Your task to perform on an android device: Add razer kraken to the cart on amazon.com, then select checkout. Image 0: 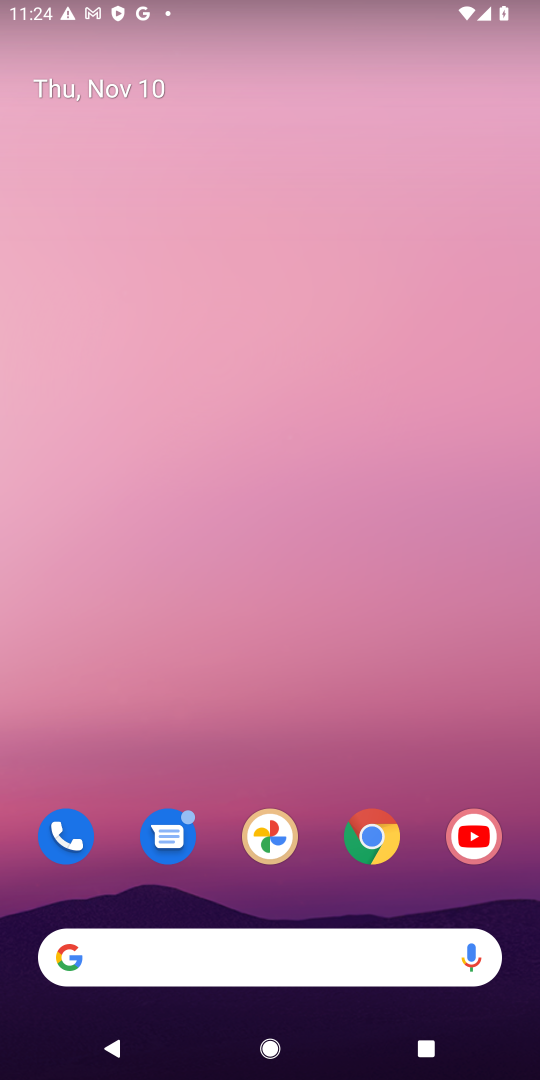
Step 0: drag from (225, 709) to (231, 108)
Your task to perform on an android device: Add razer kraken to the cart on amazon.com, then select checkout. Image 1: 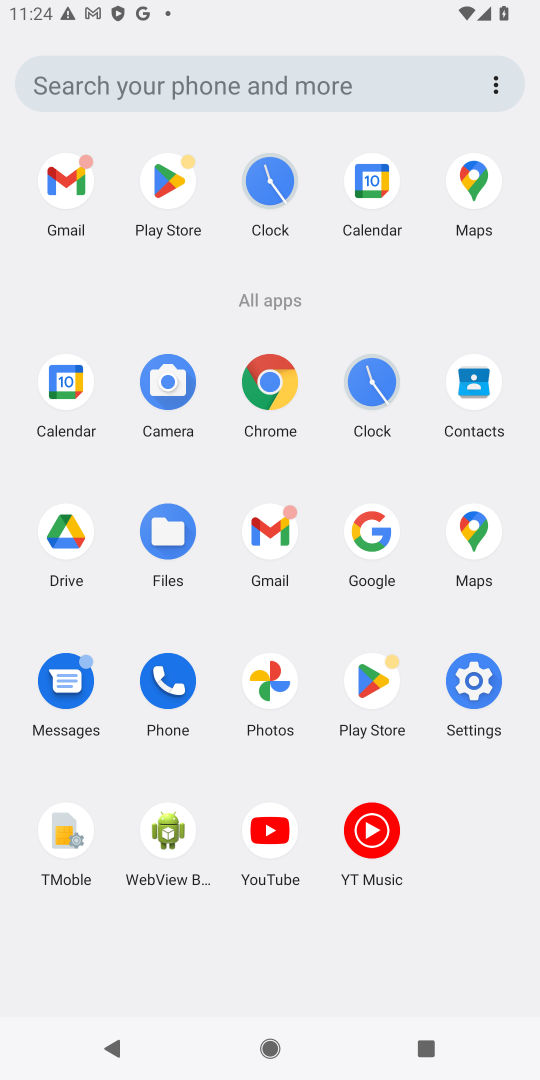
Step 1: click (275, 397)
Your task to perform on an android device: Add razer kraken to the cart on amazon.com, then select checkout. Image 2: 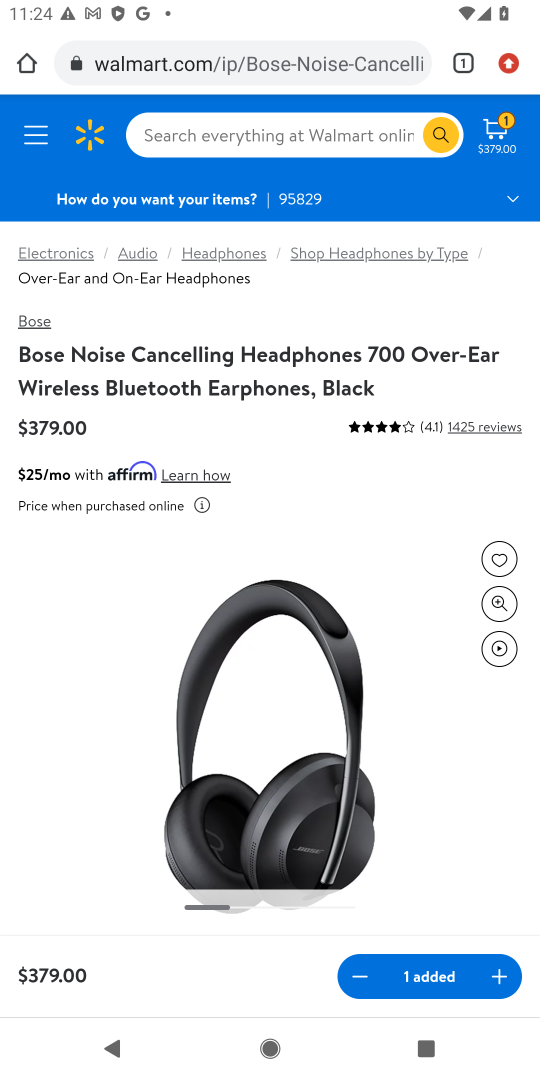
Step 2: click (245, 78)
Your task to perform on an android device: Add razer kraken to the cart on amazon.com, then select checkout. Image 3: 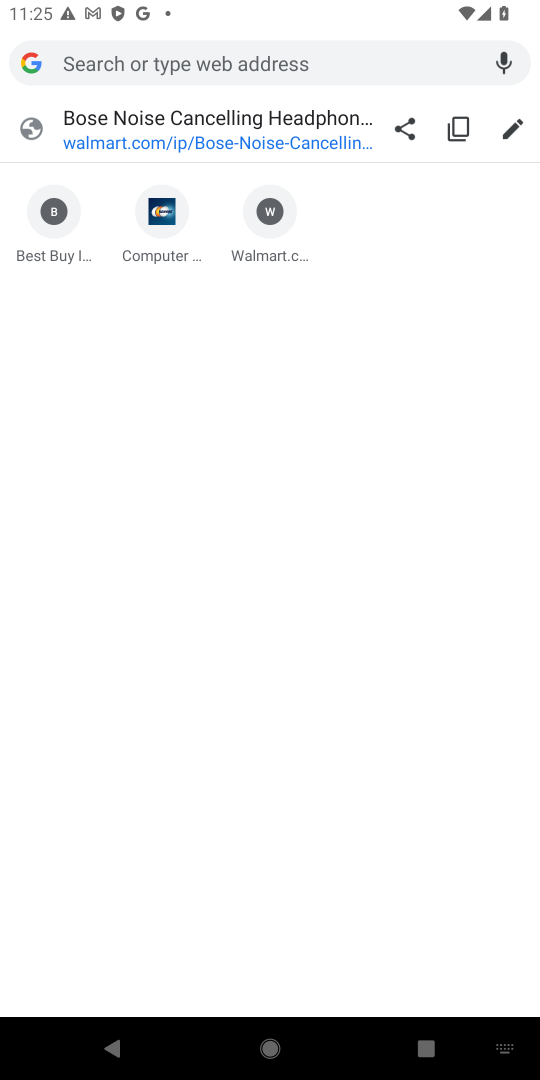
Step 3: type " amazon.com"
Your task to perform on an android device: Add razer kraken to the cart on amazon.com, then select checkout. Image 4: 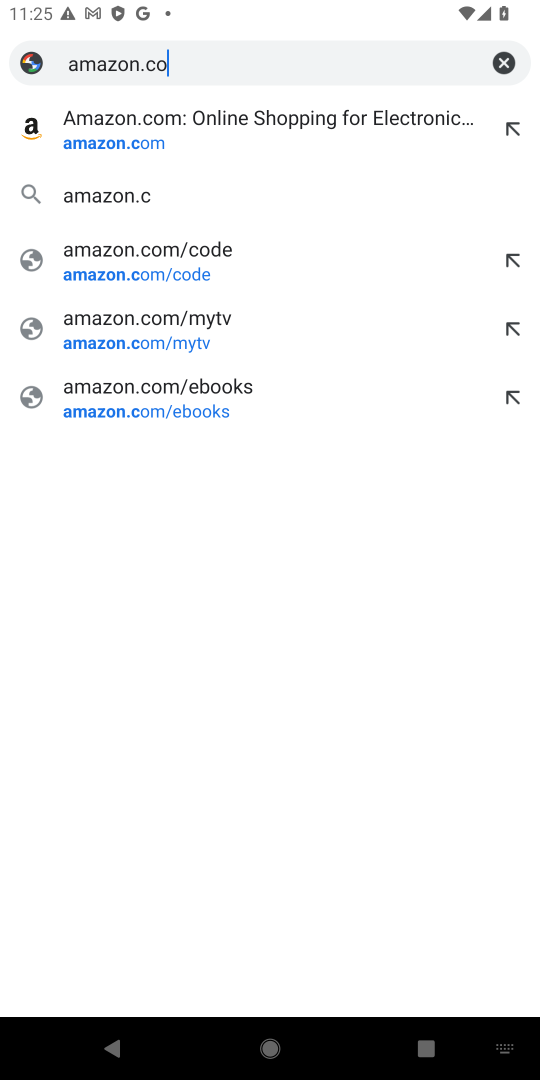
Step 4: press enter
Your task to perform on an android device: Add razer kraken to the cart on amazon.com, then select checkout. Image 5: 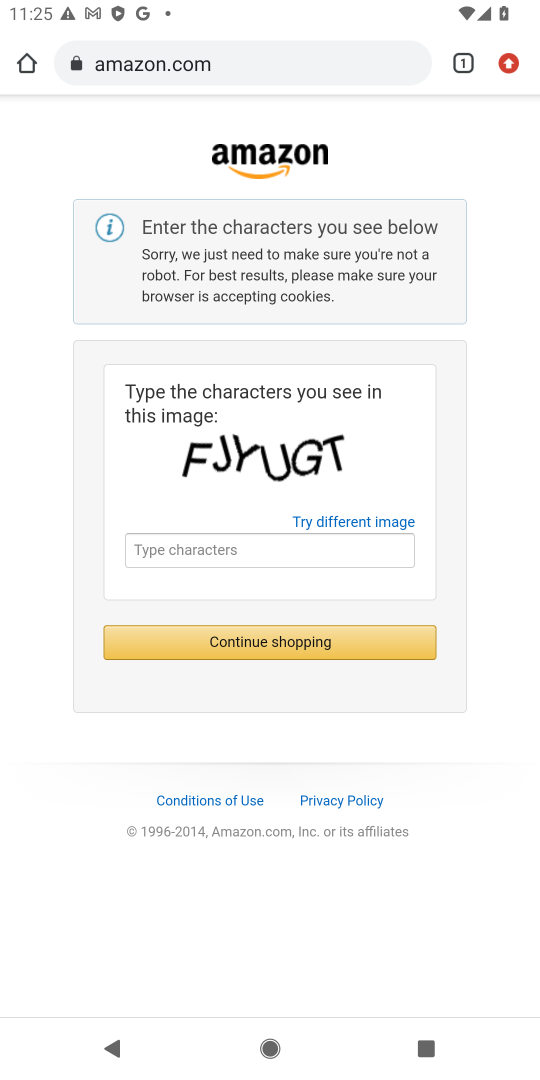
Step 5: drag from (174, 461) to (298, 444)
Your task to perform on an android device: Add razer kraken to the cart on amazon.com, then select checkout. Image 6: 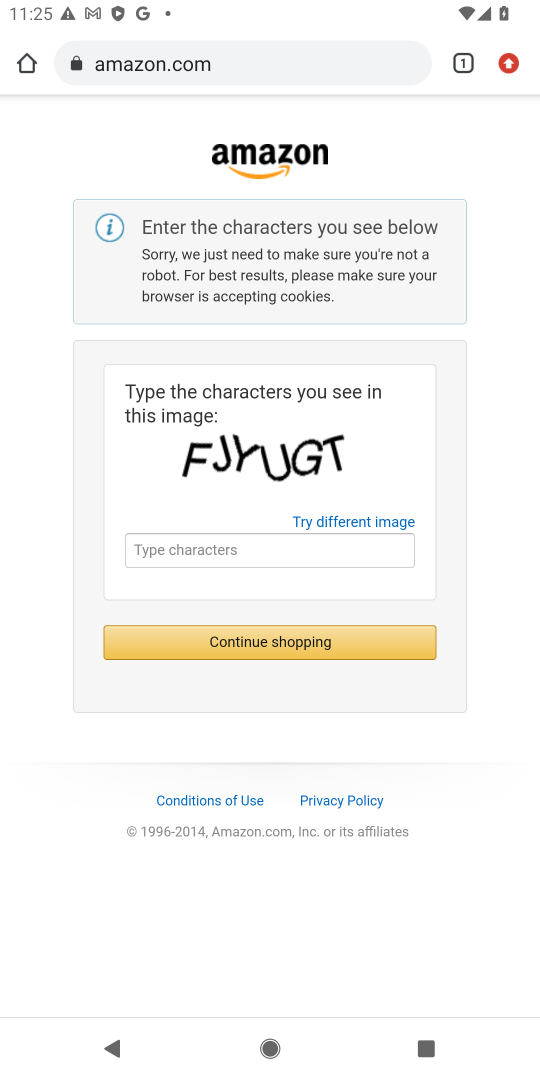
Step 6: click (191, 553)
Your task to perform on an android device: Add razer kraken to the cart on amazon.com, then select checkout. Image 7: 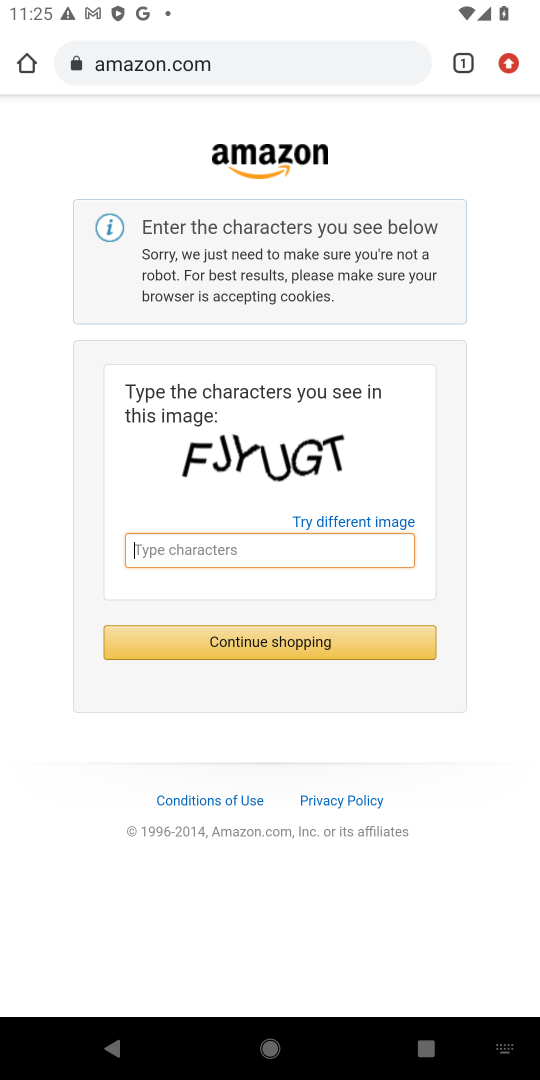
Step 7: type "FjYUGT"
Your task to perform on an android device: Add razer kraken to the cart on amazon.com, then select checkout. Image 8: 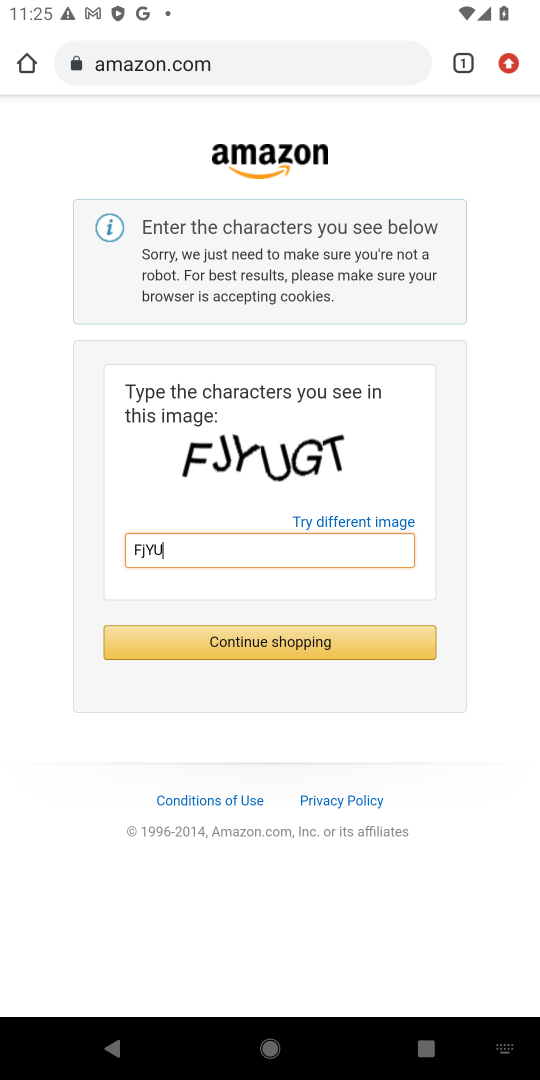
Step 8: press enter
Your task to perform on an android device: Add razer kraken to the cart on amazon.com, then select checkout. Image 9: 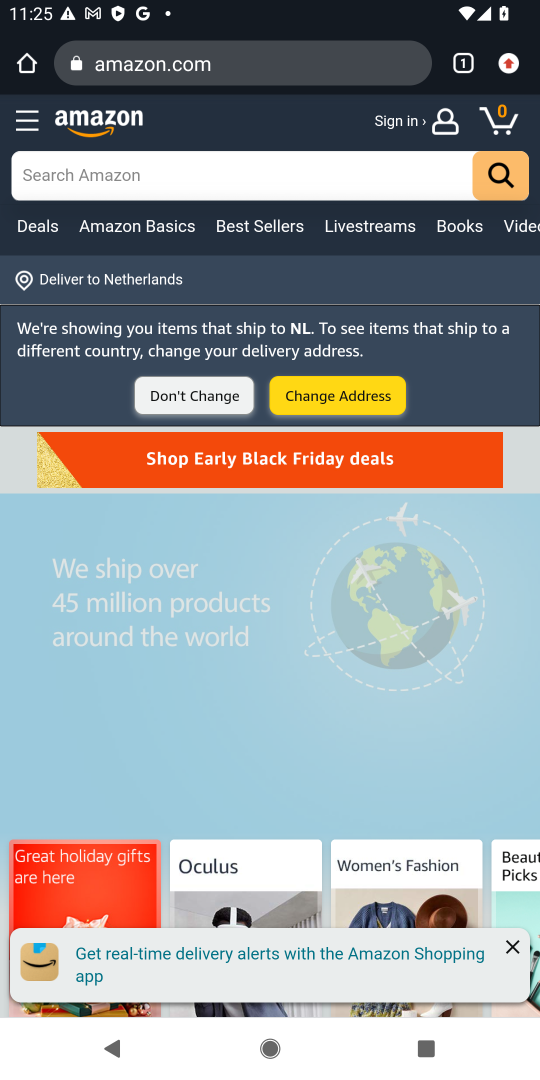
Step 9: click (68, 161)
Your task to perform on an android device: Add razer kraken to the cart on amazon.com, then select checkout. Image 10: 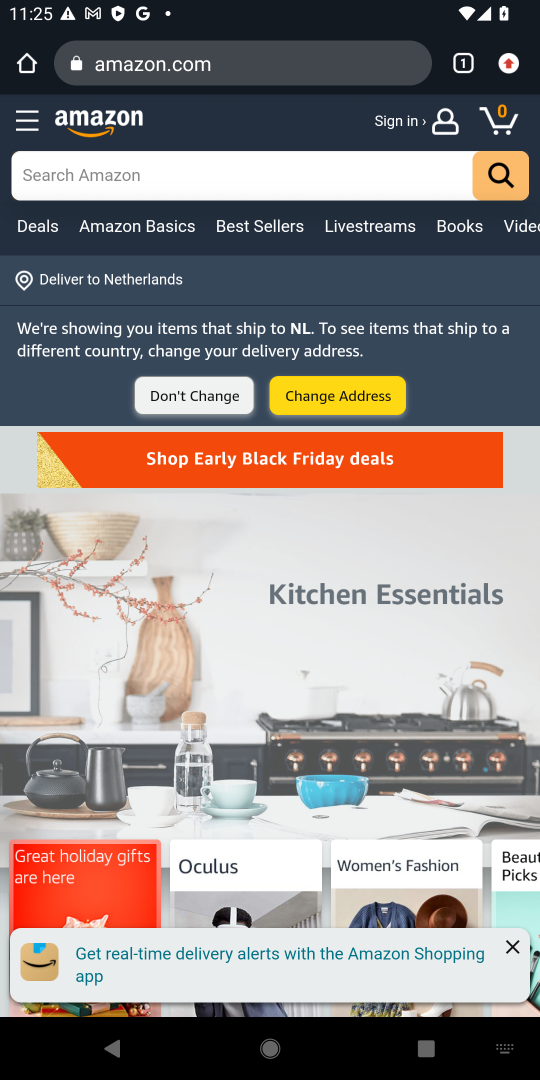
Step 10: type "razer kraken"
Your task to perform on an android device: Add razer kraken to the cart on amazon.com, then select checkout. Image 11: 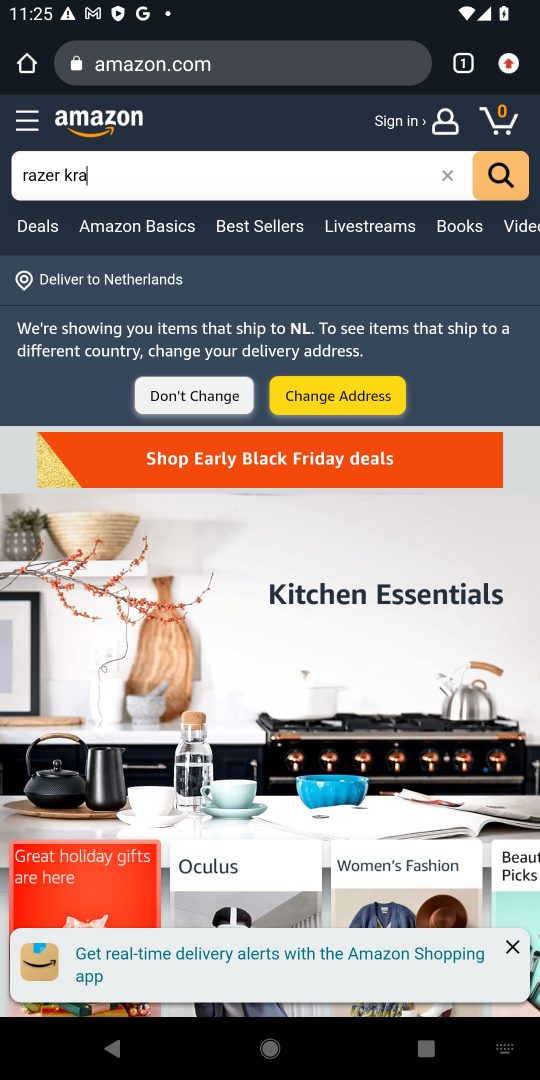
Step 11: press enter
Your task to perform on an android device: Add razer kraken to the cart on amazon.com, then select checkout. Image 12: 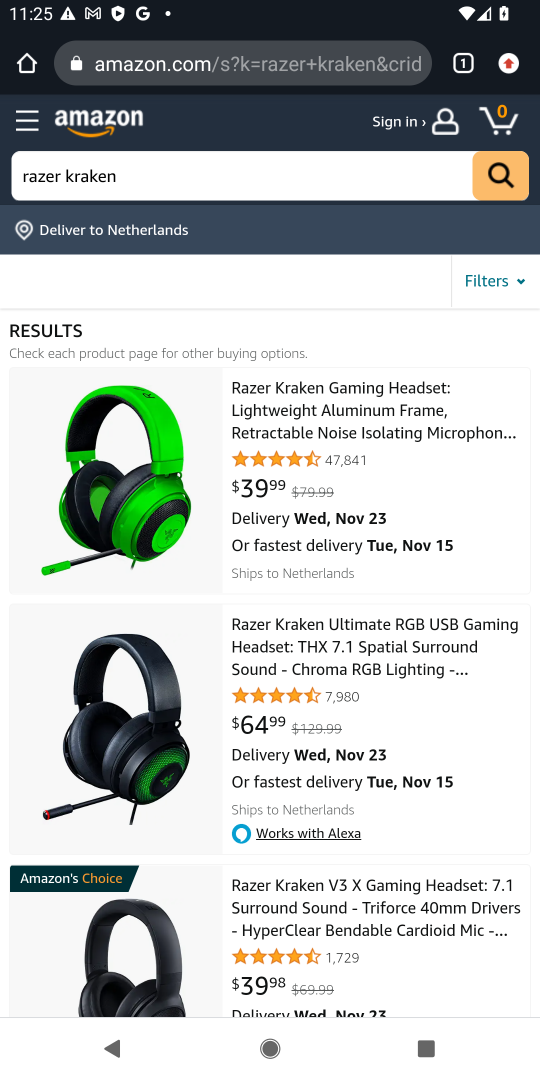
Step 12: click (368, 417)
Your task to perform on an android device: Add razer kraken to the cart on amazon.com, then select checkout. Image 13: 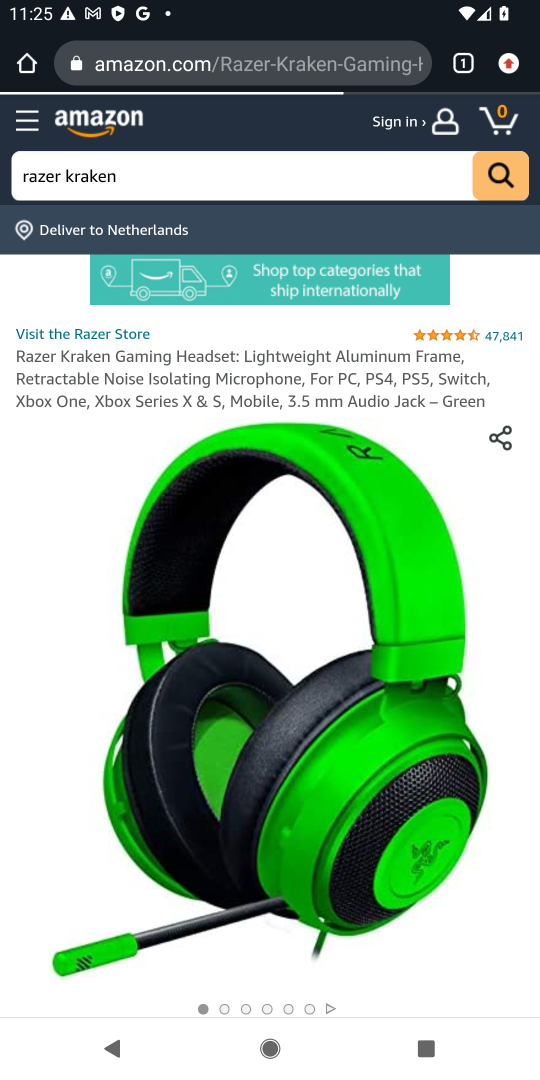
Step 13: drag from (337, 701) to (343, 447)
Your task to perform on an android device: Add razer kraken to the cart on amazon.com, then select checkout. Image 14: 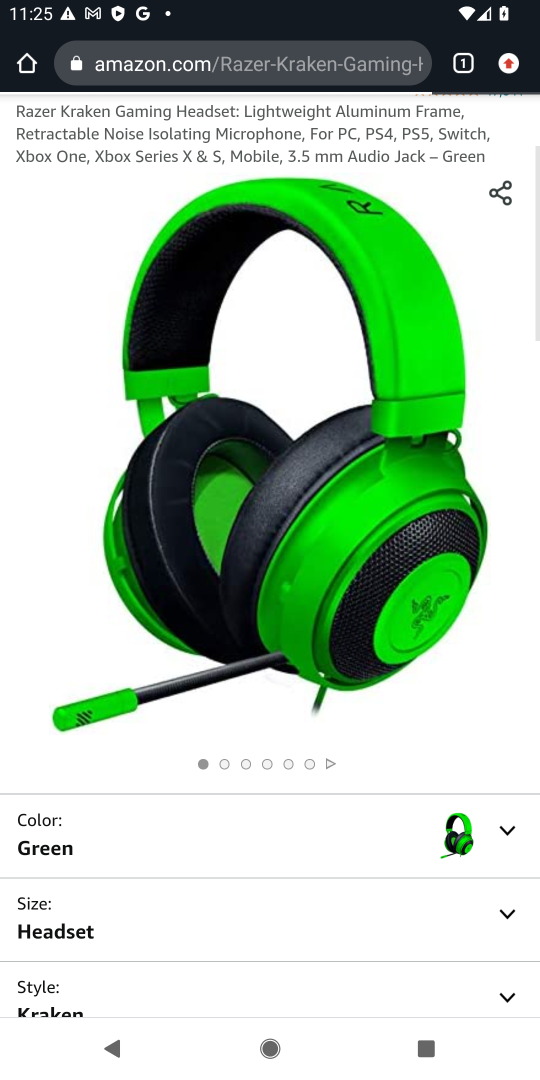
Step 14: drag from (381, 763) to (390, 376)
Your task to perform on an android device: Add razer kraken to the cart on amazon.com, then select checkout. Image 15: 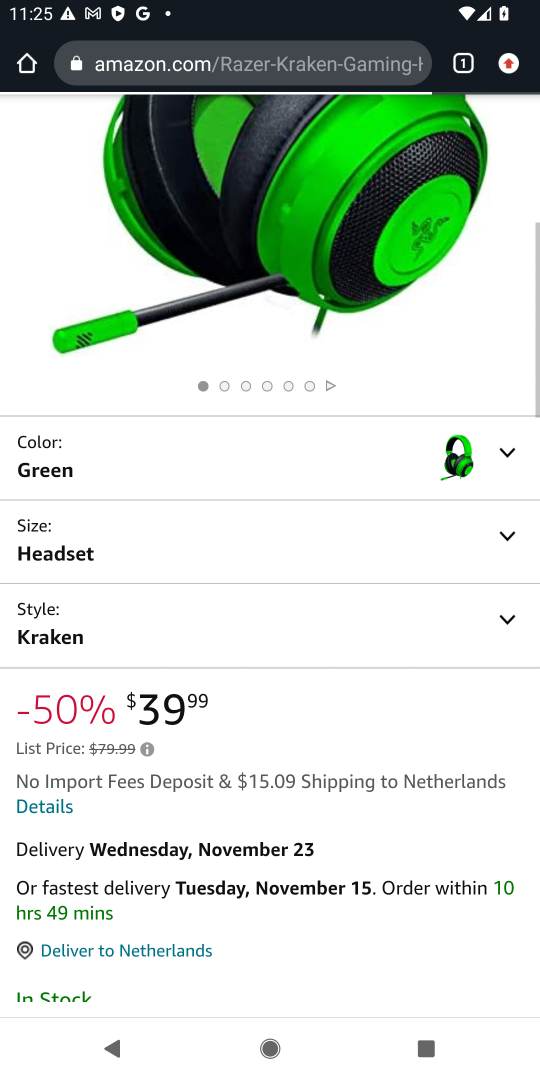
Step 15: drag from (355, 650) to (328, 333)
Your task to perform on an android device: Add razer kraken to the cart on amazon.com, then select checkout. Image 16: 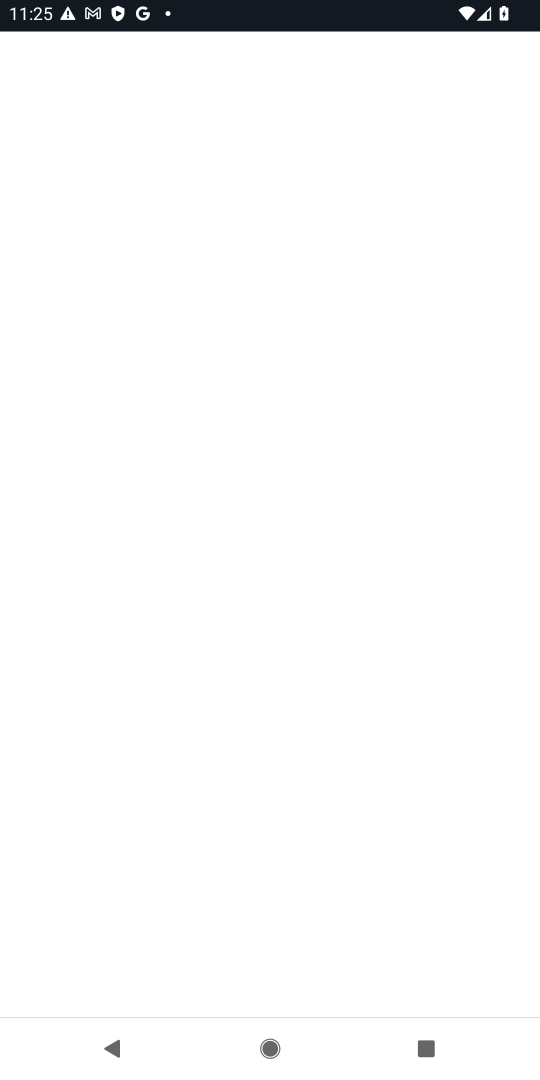
Step 16: click (337, 807)
Your task to perform on an android device: Add razer kraken to the cart on amazon.com, then select checkout. Image 17: 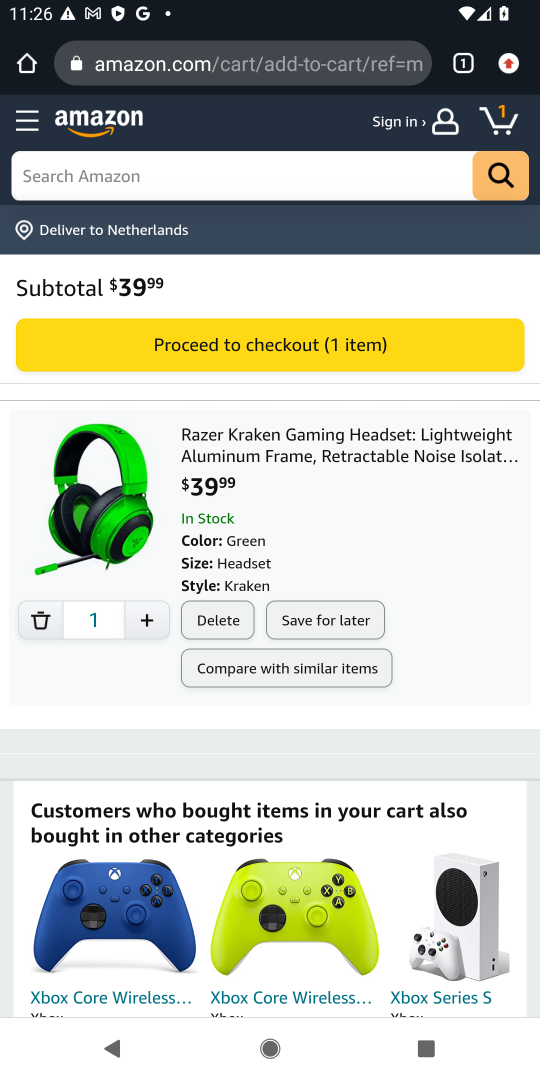
Step 17: click (494, 108)
Your task to perform on an android device: Add razer kraken to the cart on amazon.com, then select checkout. Image 18: 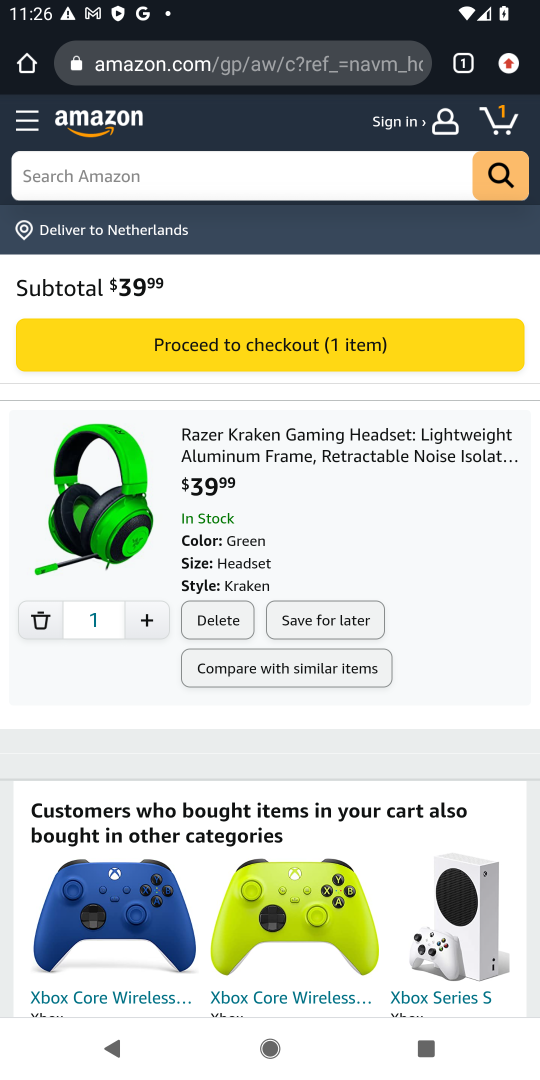
Step 18: click (328, 338)
Your task to perform on an android device: Add razer kraken to the cart on amazon.com, then select checkout. Image 19: 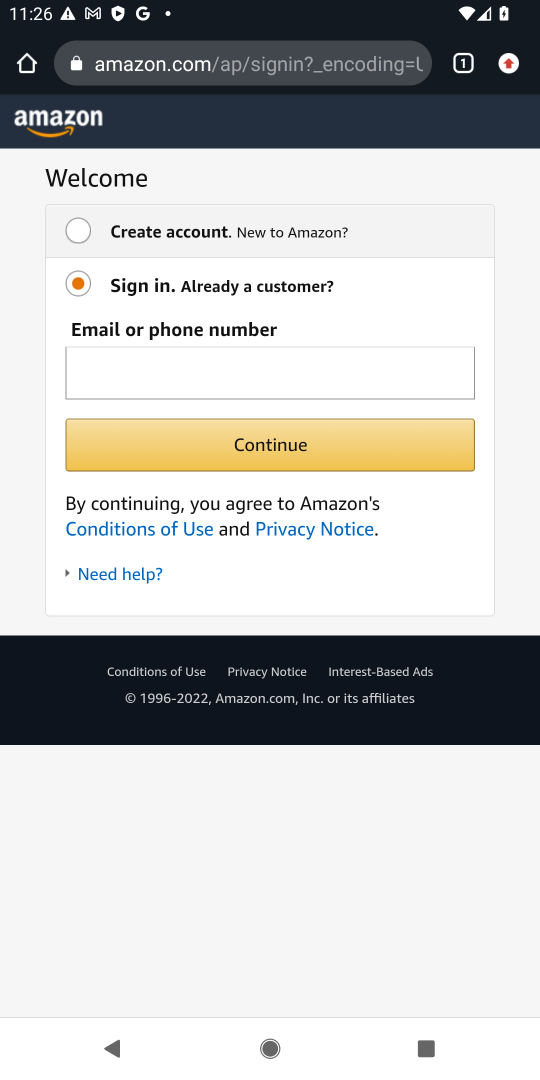
Step 19: task complete